Your task to perform on an android device: add a label to a message in the gmail app Image 0: 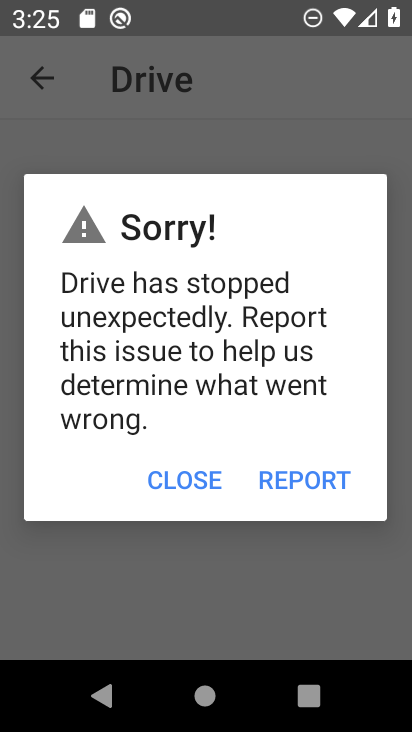
Step 0: click (179, 481)
Your task to perform on an android device: add a label to a message in the gmail app Image 1: 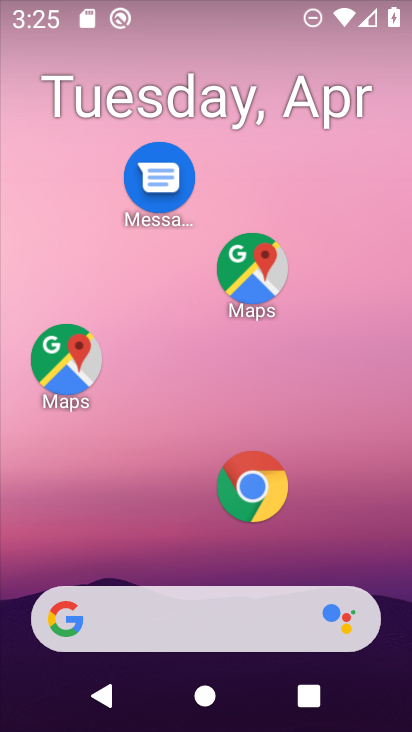
Step 1: drag from (149, 545) to (216, 5)
Your task to perform on an android device: add a label to a message in the gmail app Image 2: 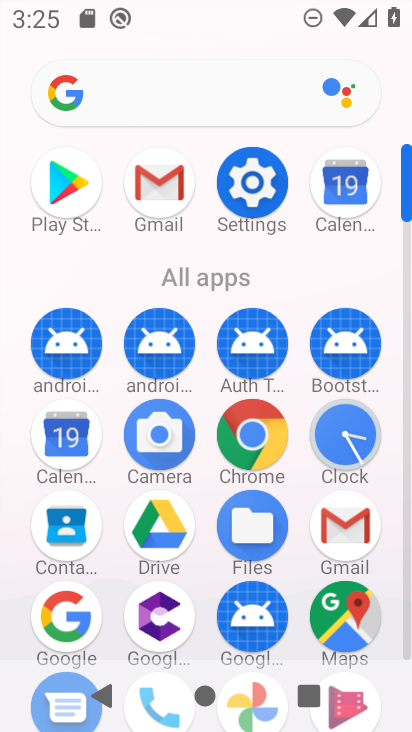
Step 2: click (345, 528)
Your task to perform on an android device: add a label to a message in the gmail app Image 3: 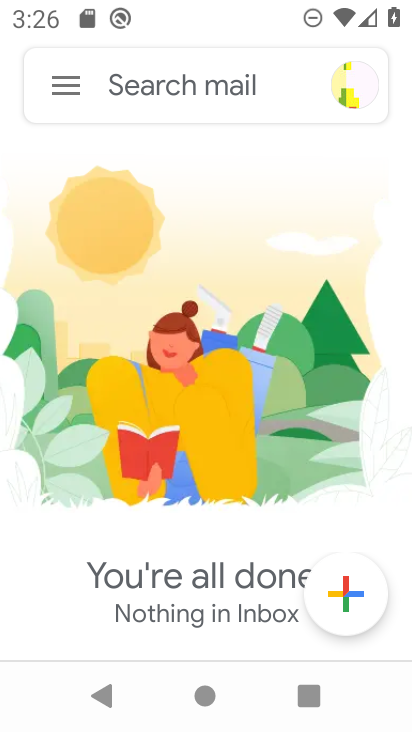
Step 3: click (6, 219)
Your task to perform on an android device: add a label to a message in the gmail app Image 4: 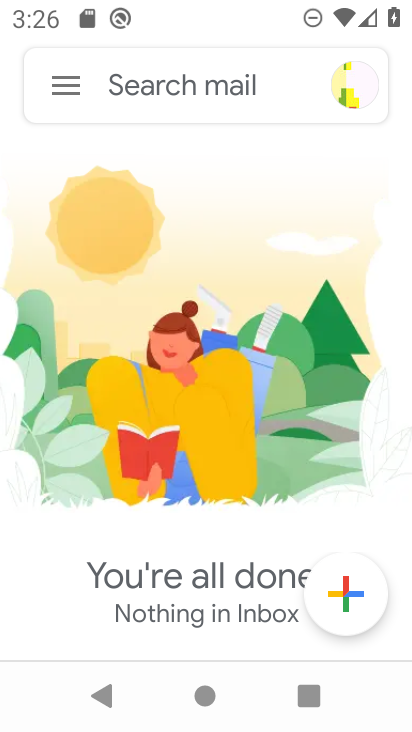
Step 4: click (34, 111)
Your task to perform on an android device: add a label to a message in the gmail app Image 5: 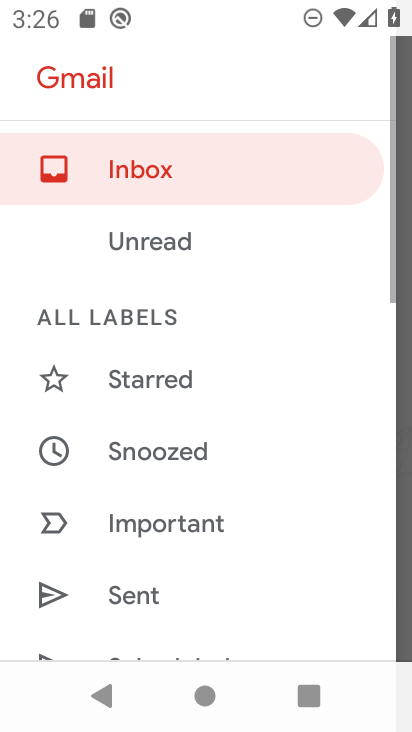
Step 5: task complete